Your task to perform on an android device: Go to sound settings Image 0: 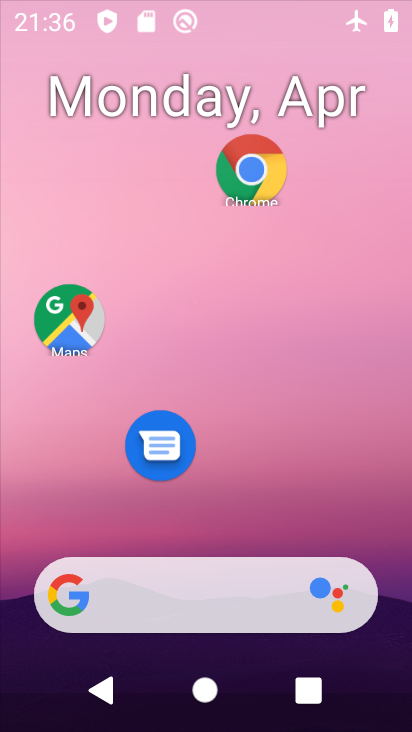
Step 0: drag from (209, 538) to (209, 209)
Your task to perform on an android device: Go to sound settings Image 1: 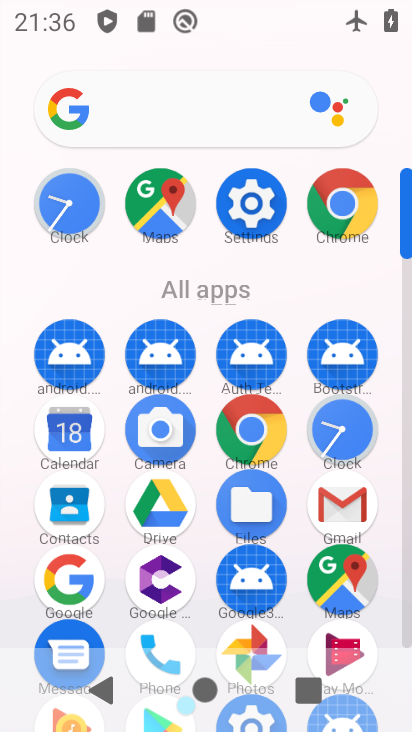
Step 1: click (244, 228)
Your task to perform on an android device: Go to sound settings Image 2: 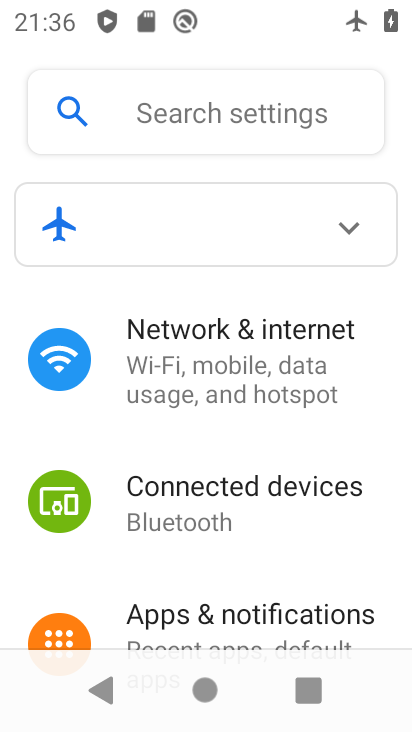
Step 2: drag from (236, 571) to (236, 188)
Your task to perform on an android device: Go to sound settings Image 3: 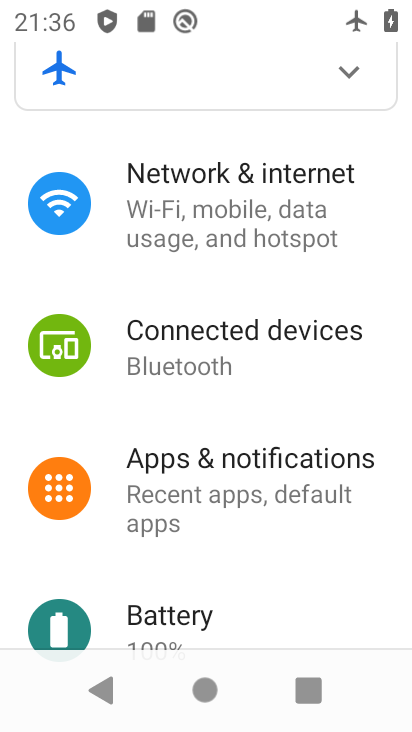
Step 3: drag from (245, 540) to (240, 229)
Your task to perform on an android device: Go to sound settings Image 4: 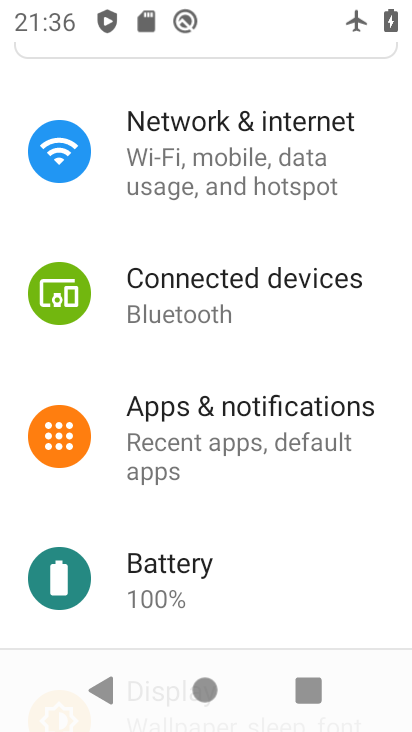
Step 4: drag from (235, 523) to (238, 197)
Your task to perform on an android device: Go to sound settings Image 5: 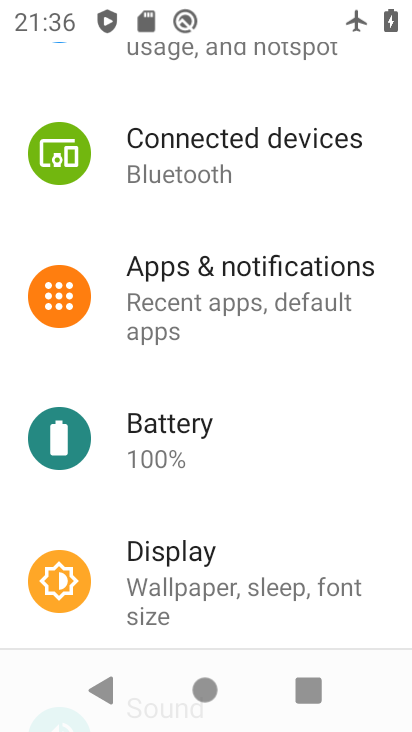
Step 5: drag from (230, 395) to (238, 140)
Your task to perform on an android device: Go to sound settings Image 6: 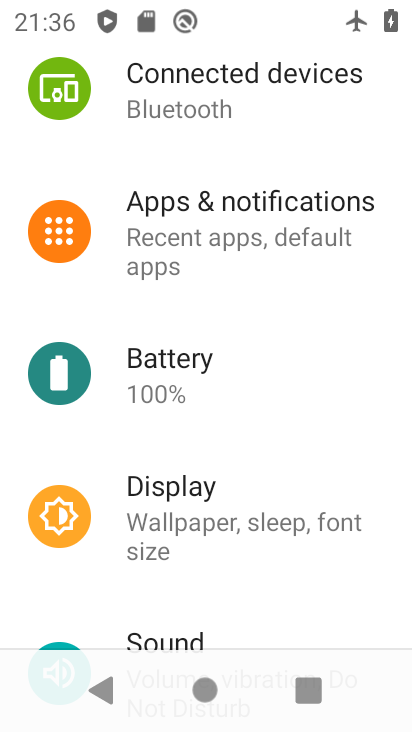
Step 6: drag from (253, 560) to (248, 136)
Your task to perform on an android device: Go to sound settings Image 7: 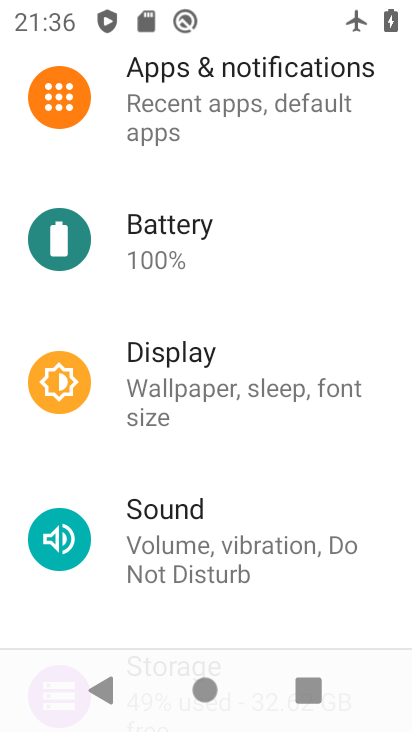
Step 7: click (190, 511)
Your task to perform on an android device: Go to sound settings Image 8: 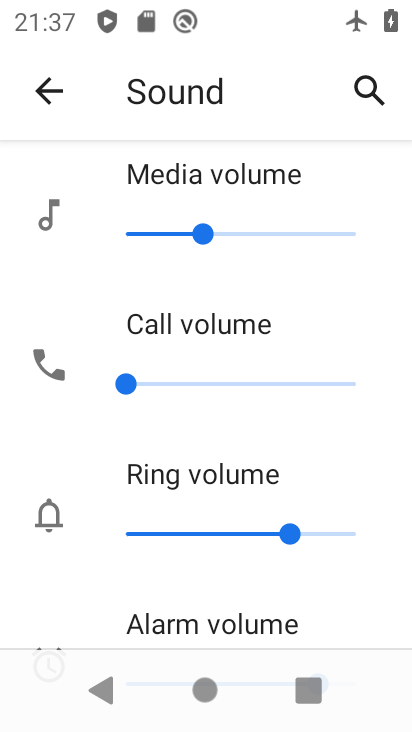
Step 8: task complete